Your task to perform on an android device: turn on javascript in the chrome app Image 0: 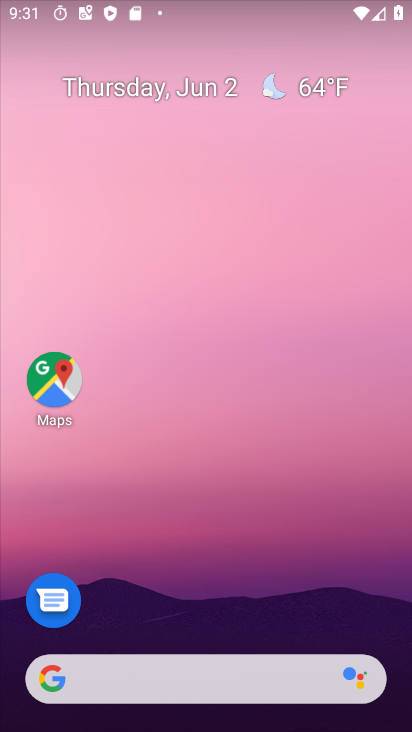
Step 0: drag from (206, 582) to (205, 37)
Your task to perform on an android device: turn on javascript in the chrome app Image 1: 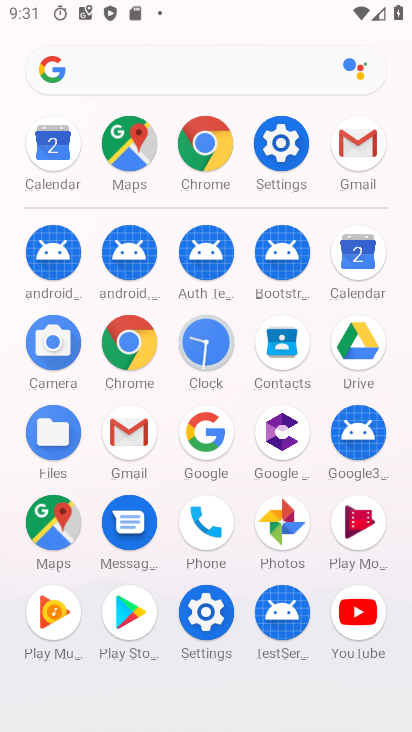
Step 1: click (208, 138)
Your task to perform on an android device: turn on javascript in the chrome app Image 2: 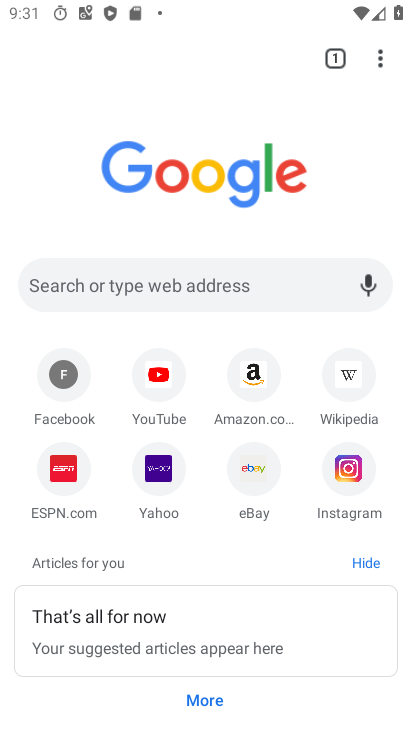
Step 2: click (374, 61)
Your task to perform on an android device: turn on javascript in the chrome app Image 3: 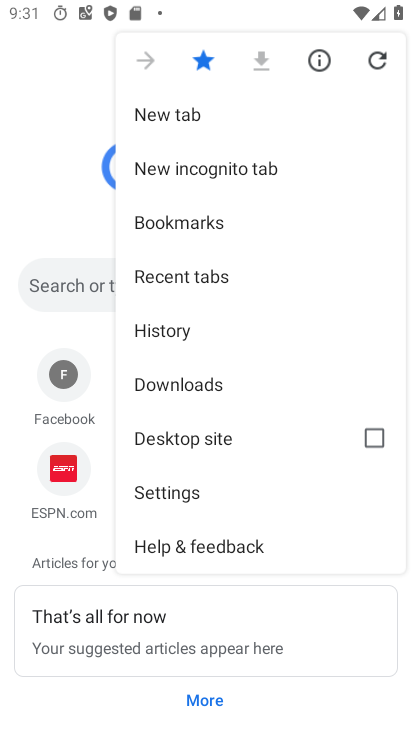
Step 3: click (182, 490)
Your task to perform on an android device: turn on javascript in the chrome app Image 4: 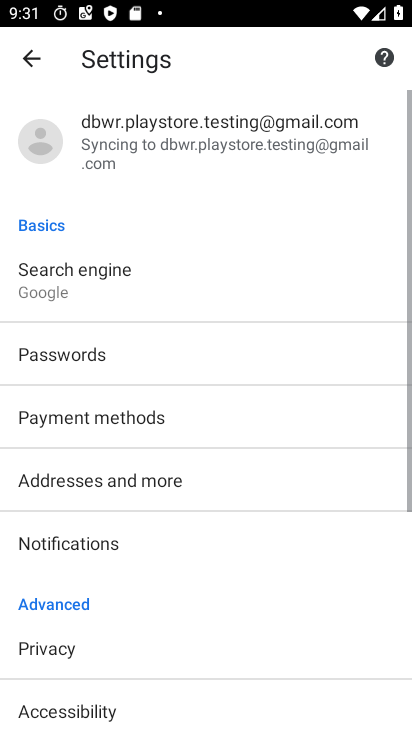
Step 4: drag from (157, 630) to (165, 302)
Your task to perform on an android device: turn on javascript in the chrome app Image 5: 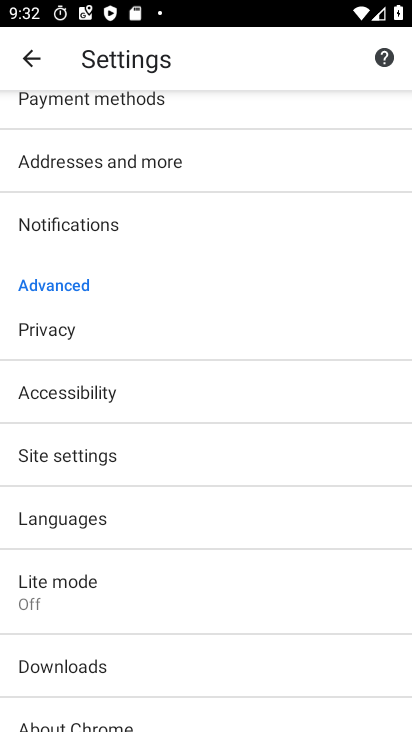
Step 5: click (95, 451)
Your task to perform on an android device: turn on javascript in the chrome app Image 6: 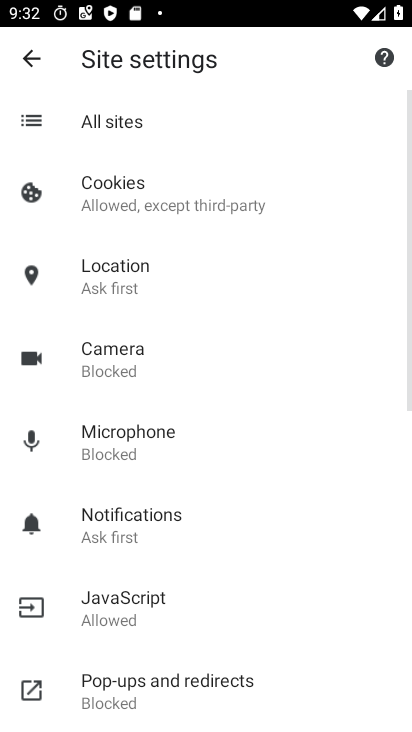
Step 6: click (159, 623)
Your task to perform on an android device: turn on javascript in the chrome app Image 7: 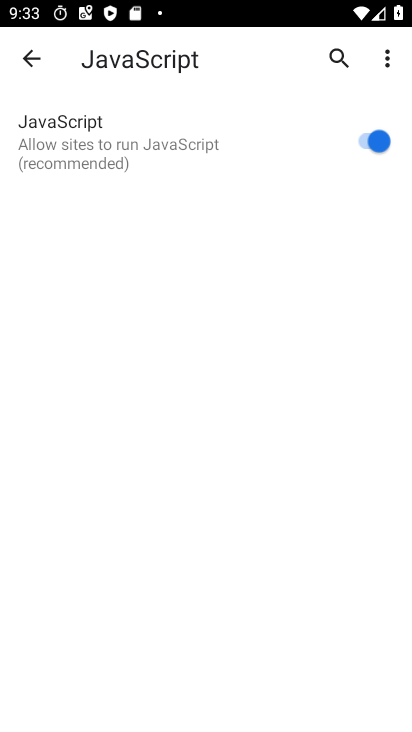
Step 7: task complete